Your task to perform on an android device: Open display settings Image 0: 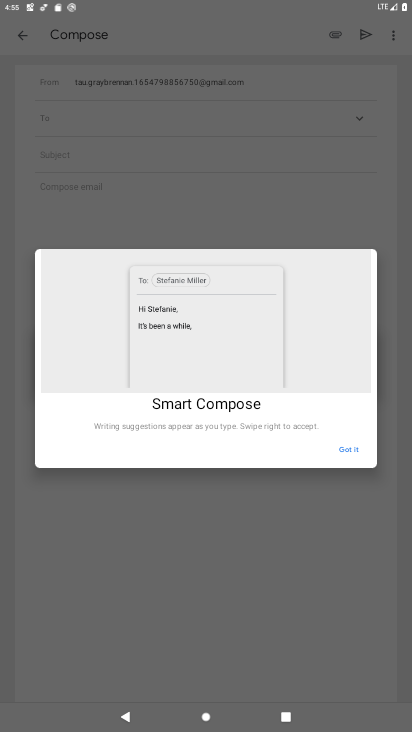
Step 0: press home button
Your task to perform on an android device: Open display settings Image 1: 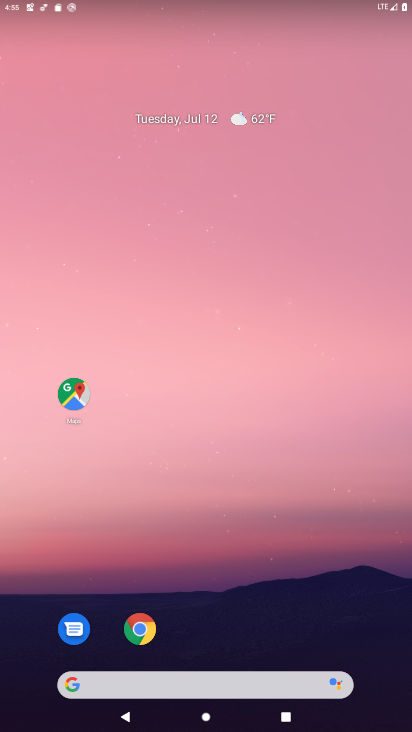
Step 1: drag from (273, 533) to (251, 29)
Your task to perform on an android device: Open display settings Image 2: 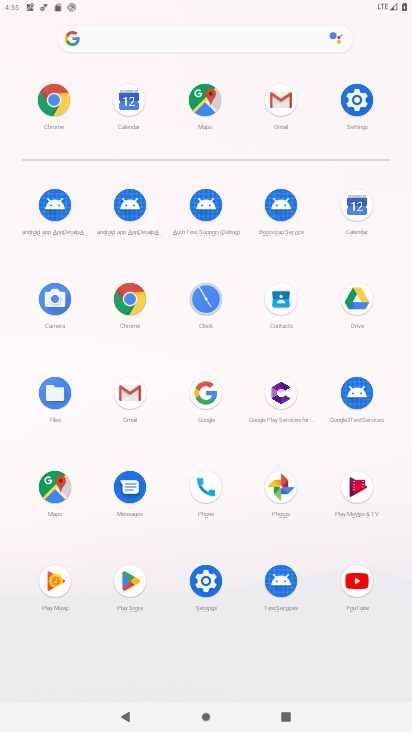
Step 2: click (357, 130)
Your task to perform on an android device: Open display settings Image 3: 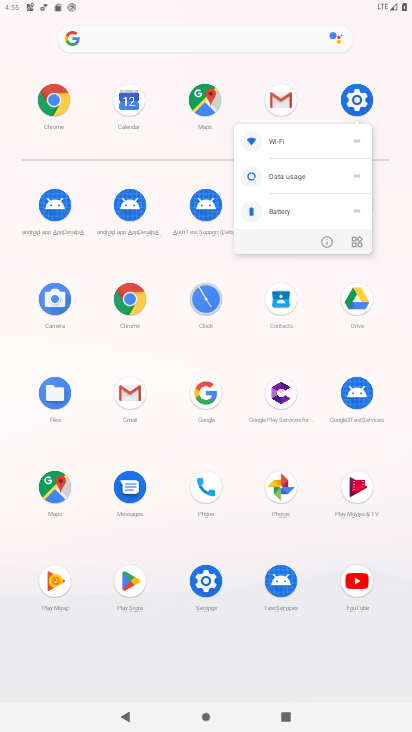
Step 3: click (359, 113)
Your task to perform on an android device: Open display settings Image 4: 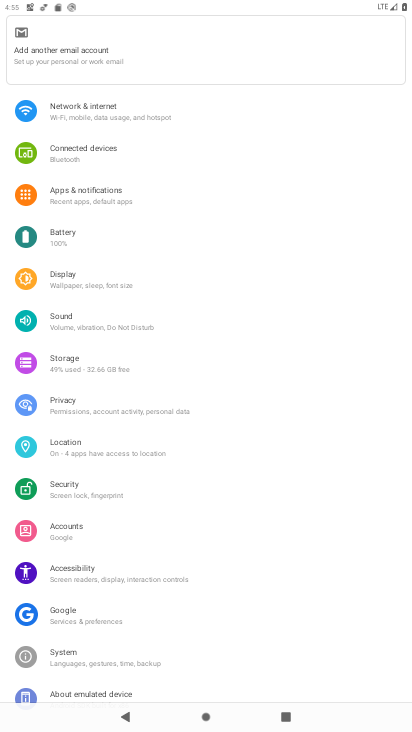
Step 4: click (82, 277)
Your task to perform on an android device: Open display settings Image 5: 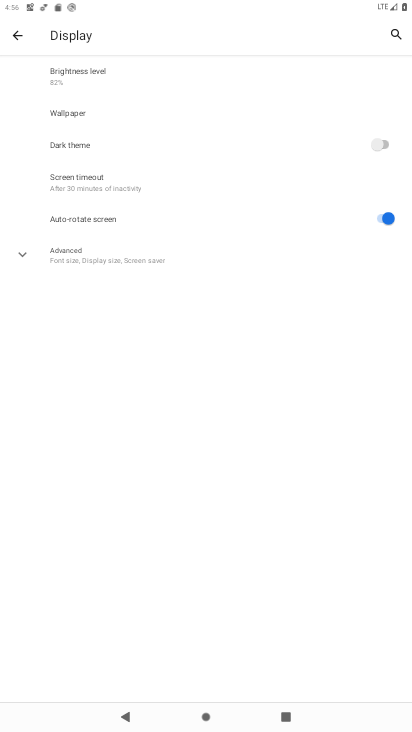
Step 5: task complete